Your task to perform on an android device: open chrome and create a bookmark for the current page Image 0: 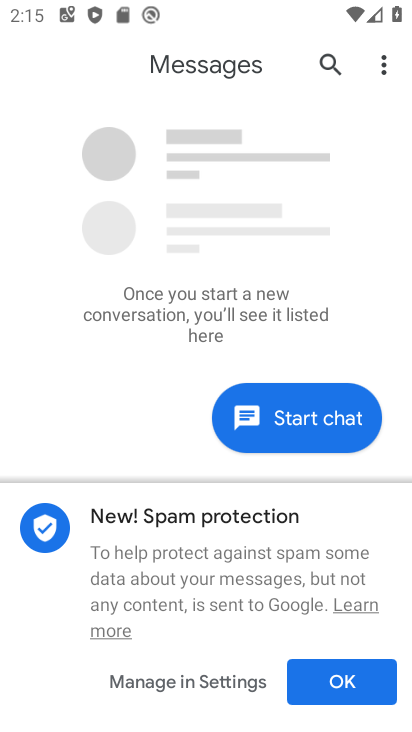
Step 0: press home button
Your task to perform on an android device: open chrome and create a bookmark for the current page Image 1: 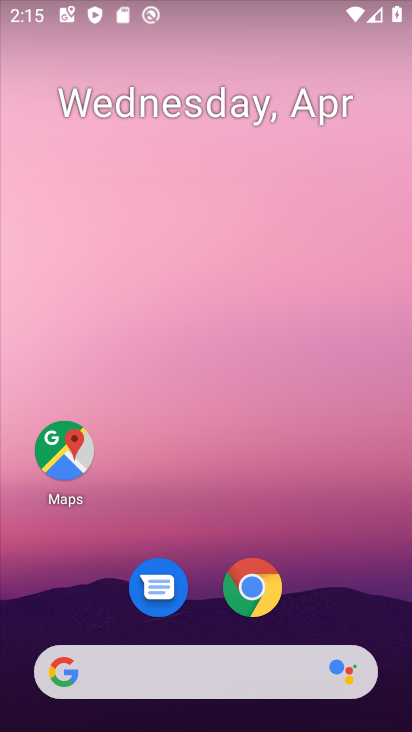
Step 1: click (234, 574)
Your task to perform on an android device: open chrome and create a bookmark for the current page Image 2: 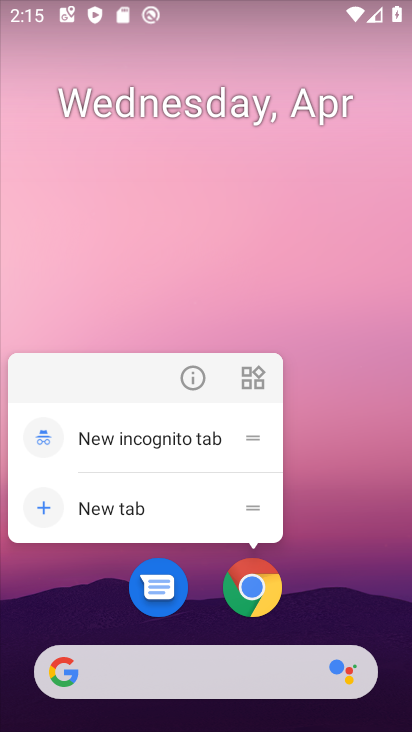
Step 2: click (232, 572)
Your task to perform on an android device: open chrome and create a bookmark for the current page Image 3: 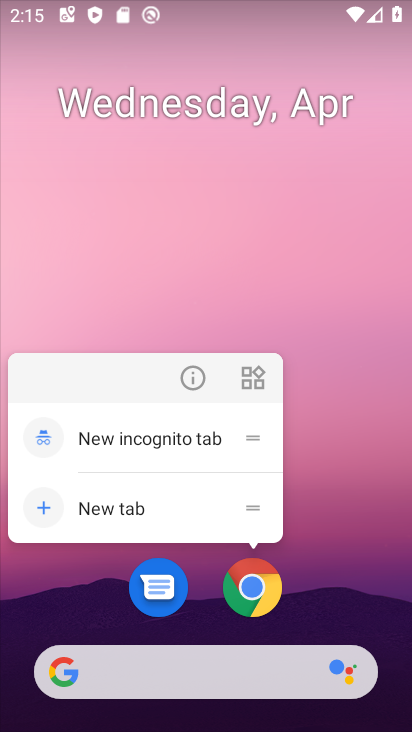
Step 3: click (263, 591)
Your task to perform on an android device: open chrome and create a bookmark for the current page Image 4: 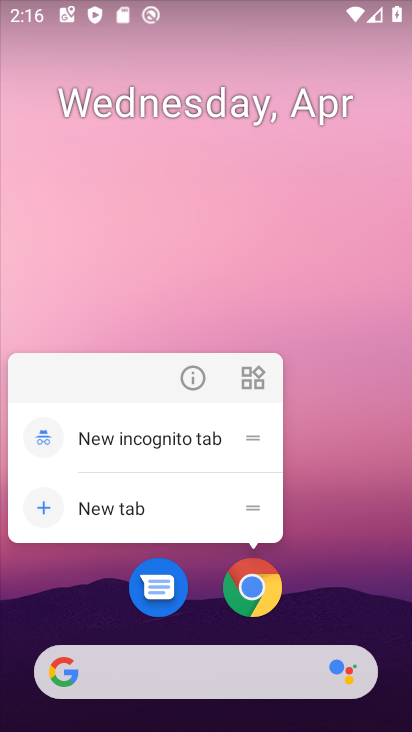
Step 4: click (252, 606)
Your task to perform on an android device: open chrome and create a bookmark for the current page Image 5: 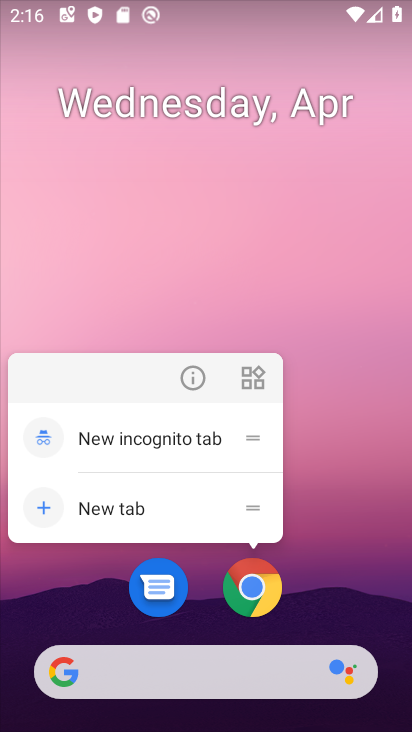
Step 5: click (252, 606)
Your task to perform on an android device: open chrome and create a bookmark for the current page Image 6: 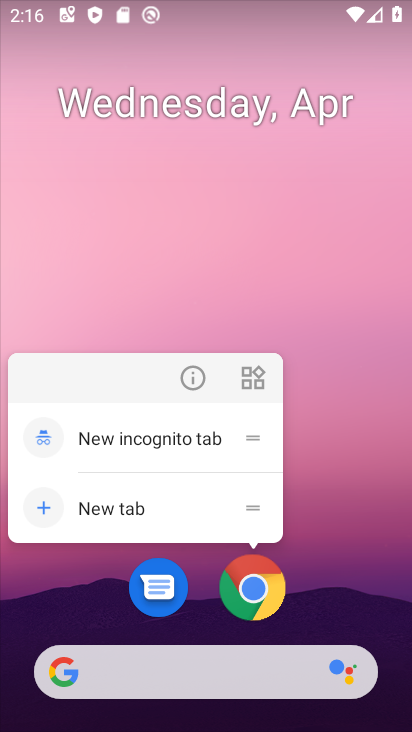
Step 6: click (252, 606)
Your task to perform on an android device: open chrome and create a bookmark for the current page Image 7: 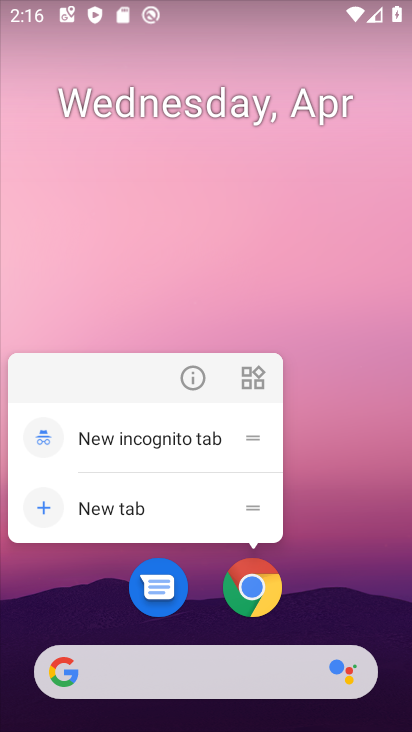
Step 7: click (251, 603)
Your task to perform on an android device: open chrome and create a bookmark for the current page Image 8: 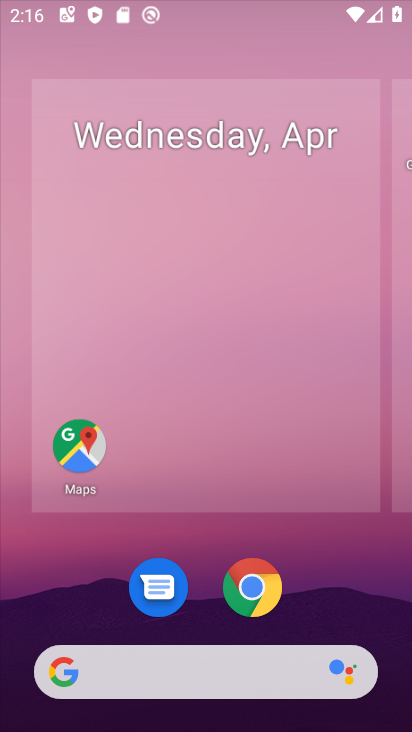
Step 8: click (243, 585)
Your task to perform on an android device: open chrome and create a bookmark for the current page Image 9: 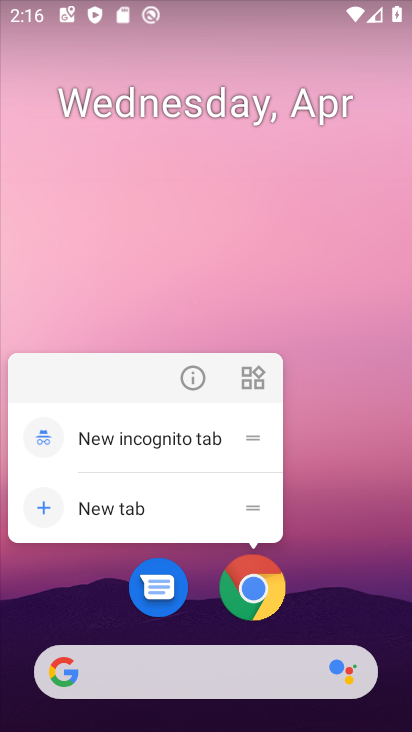
Step 9: click (243, 585)
Your task to perform on an android device: open chrome and create a bookmark for the current page Image 10: 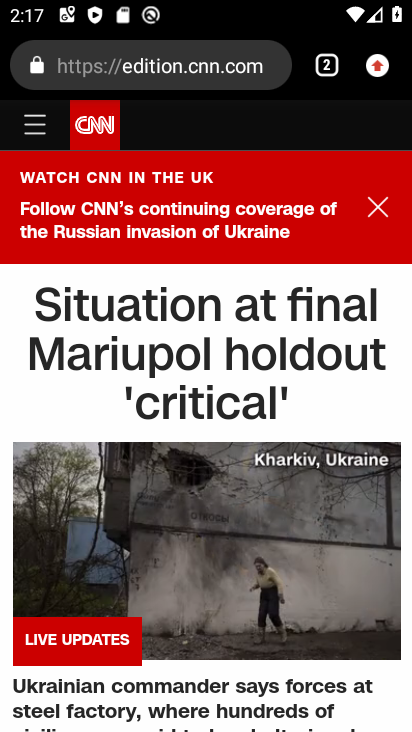
Step 10: click (375, 64)
Your task to perform on an android device: open chrome and create a bookmark for the current page Image 11: 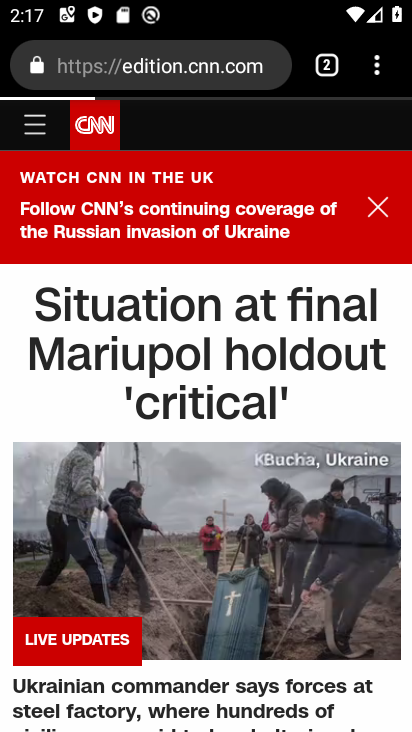
Step 11: click (186, 53)
Your task to perform on an android device: open chrome and create a bookmark for the current page Image 12: 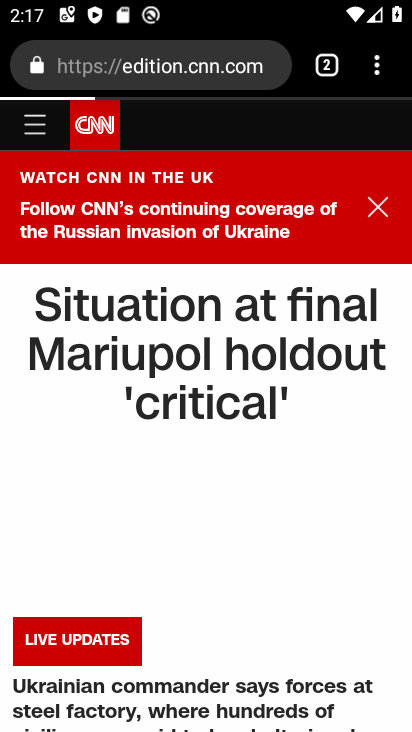
Step 12: click (374, 63)
Your task to perform on an android device: open chrome and create a bookmark for the current page Image 13: 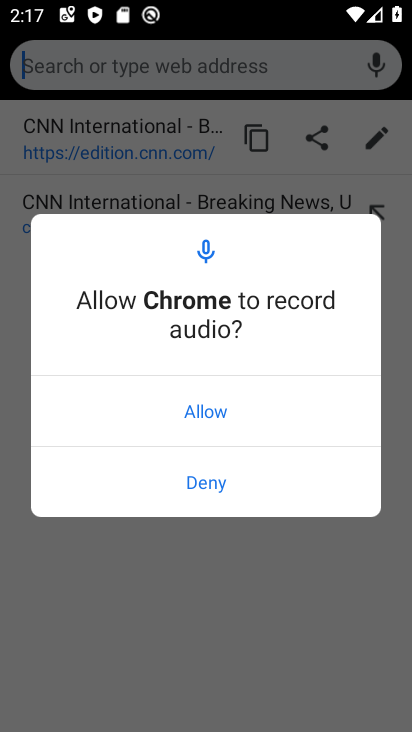
Step 13: click (158, 553)
Your task to perform on an android device: open chrome and create a bookmark for the current page Image 14: 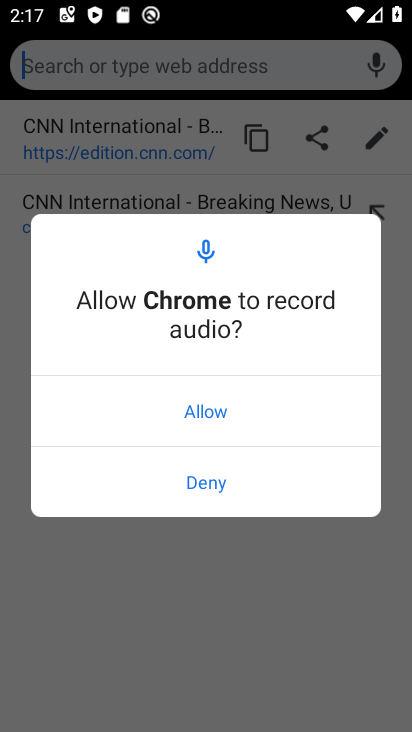
Step 14: click (176, 603)
Your task to perform on an android device: open chrome and create a bookmark for the current page Image 15: 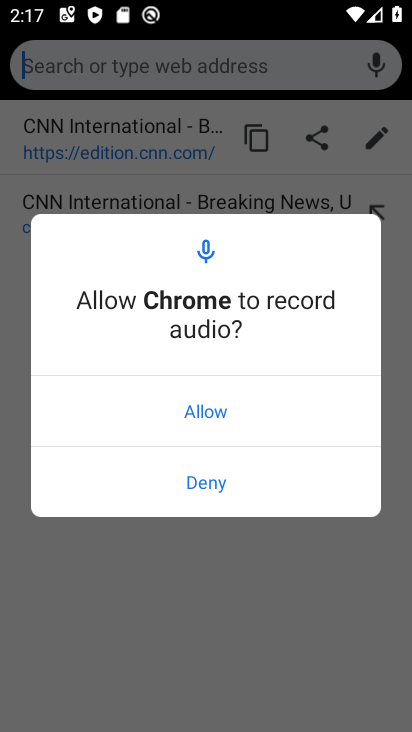
Step 15: click (223, 484)
Your task to perform on an android device: open chrome and create a bookmark for the current page Image 16: 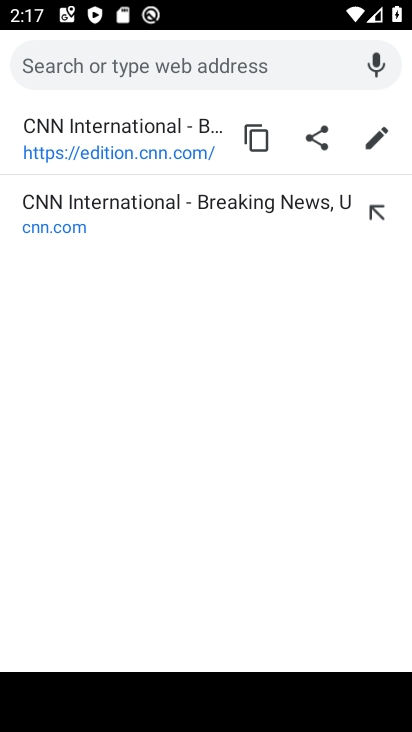
Step 16: task complete